Your task to perform on an android device: toggle wifi Image 0: 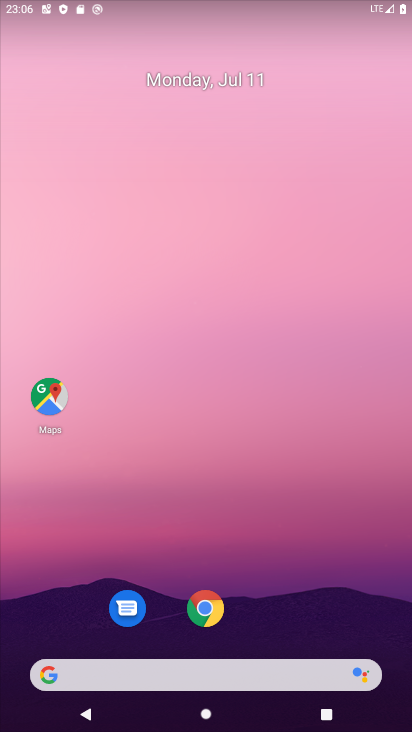
Step 0: drag from (199, 457) to (299, 10)
Your task to perform on an android device: toggle wifi Image 1: 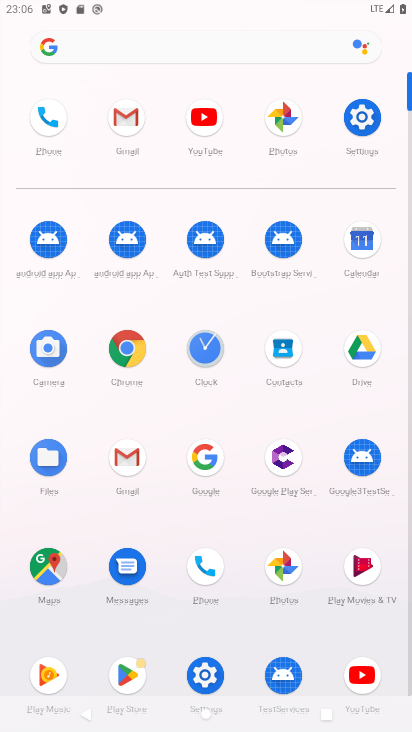
Step 1: click (190, 689)
Your task to perform on an android device: toggle wifi Image 2: 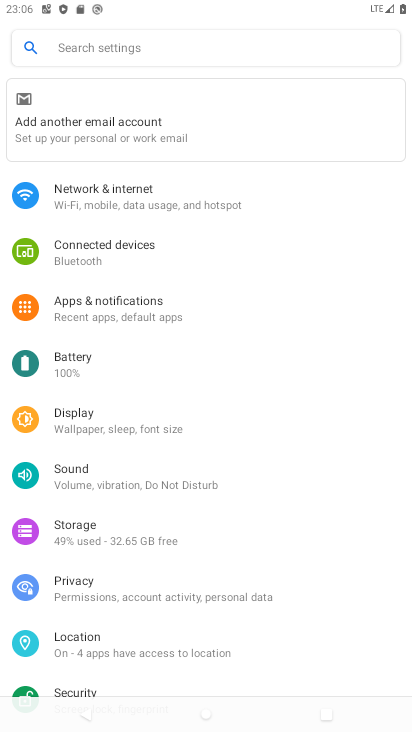
Step 2: click (171, 198)
Your task to perform on an android device: toggle wifi Image 3: 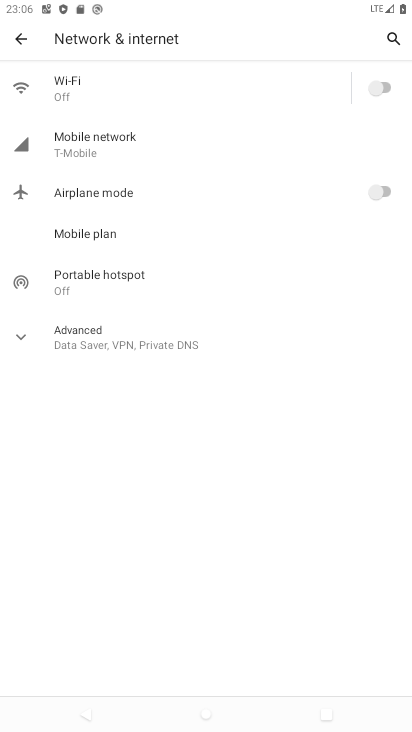
Step 3: task complete